Your task to perform on an android device: toggle priority inbox in the gmail app Image 0: 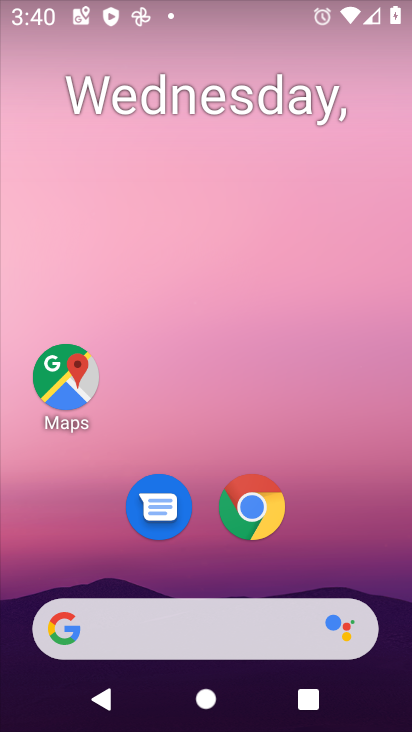
Step 0: drag from (292, 547) to (325, 305)
Your task to perform on an android device: toggle priority inbox in the gmail app Image 1: 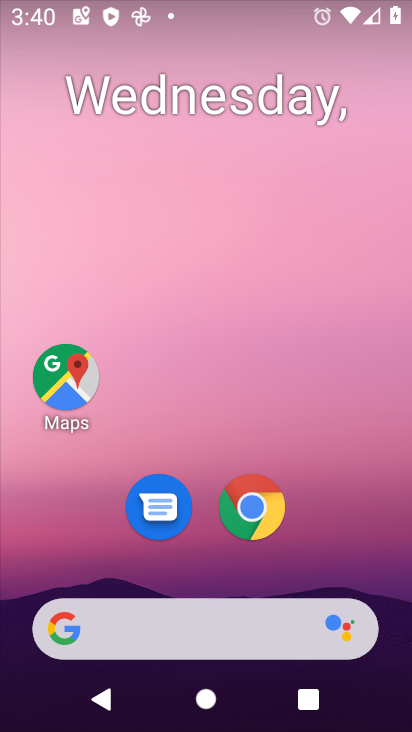
Step 1: drag from (312, 435) to (330, 141)
Your task to perform on an android device: toggle priority inbox in the gmail app Image 2: 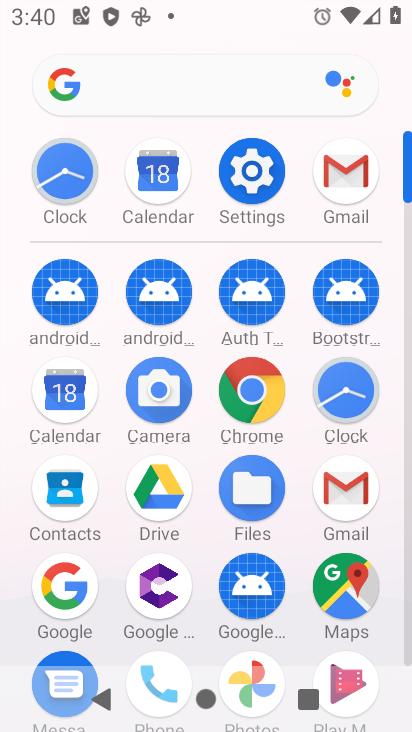
Step 2: click (350, 504)
Your task to perform on an android device: toggle priority inbox in the gmail app Image 3: 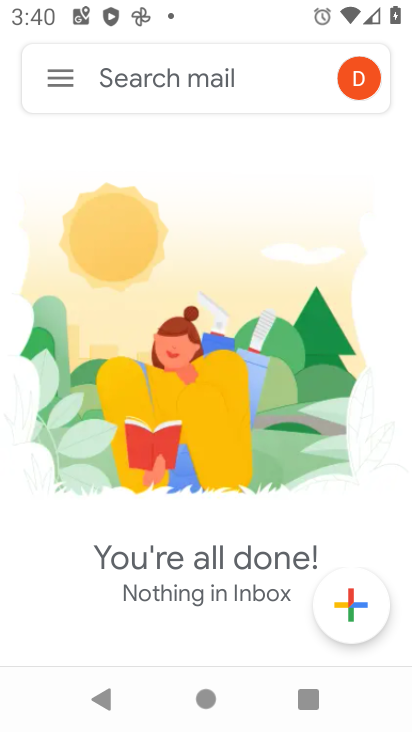
Step 3: click (84, 63)
Your task to perform on an android device: toggle priority inbox in the gmail app Image 4: 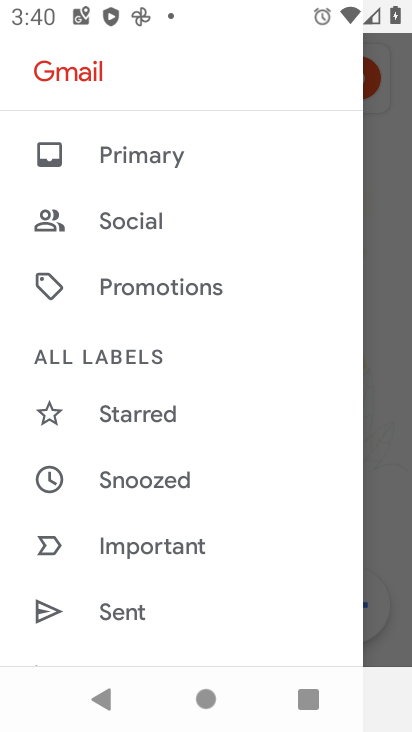
Step 4: drag from (225, 508) to (219, 278)
Your task to perform on an android device: toggle priority inbox in the gmail app Image 5: 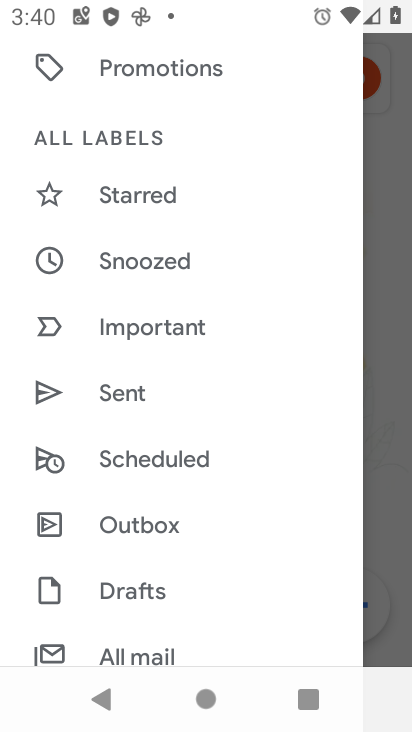
Step 5: drag from (210, 561) to (231, 184)
Your task to perform on an android device: toggle priority inbox in the gmail app Image 6: 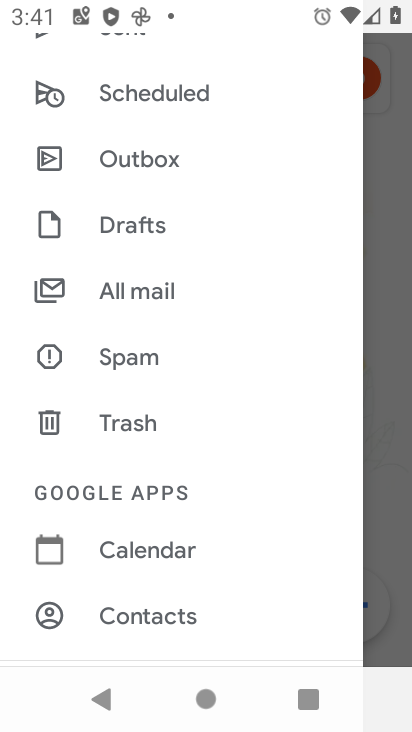
Step 6: click (103, 282)
Your task to perform on an android device: toggle priority inbox in the gmail app Image 7: 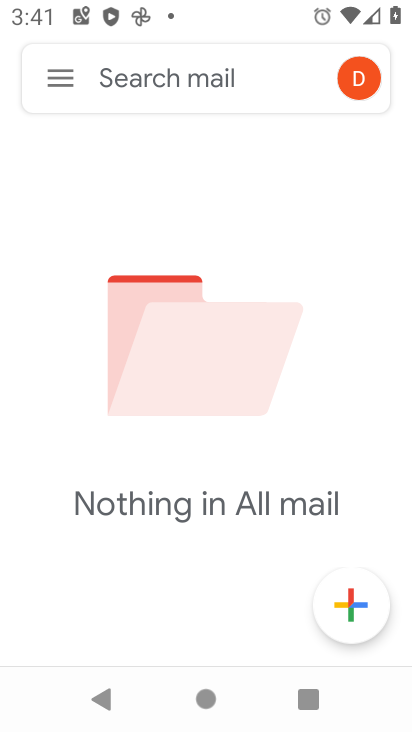
Step 7: click (80, 74)
Your task to perform on an android device: toggle priority inbox in the gmail app Image 8: 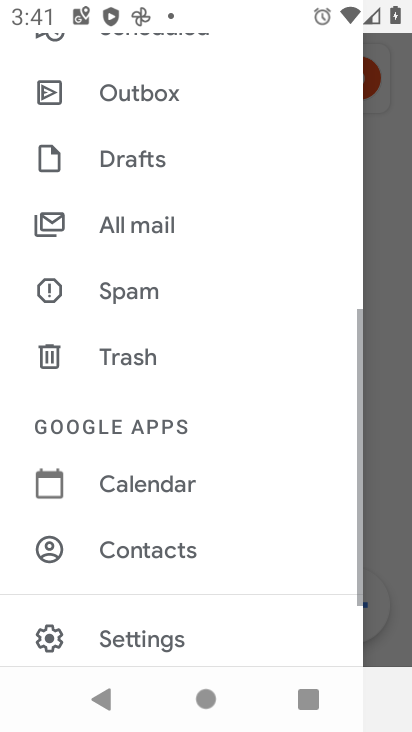
Step 8: drag from (160, 211) to (268, 535)
Your task to perform on an android device: toggle priority inbox in the gmail app Image 9: 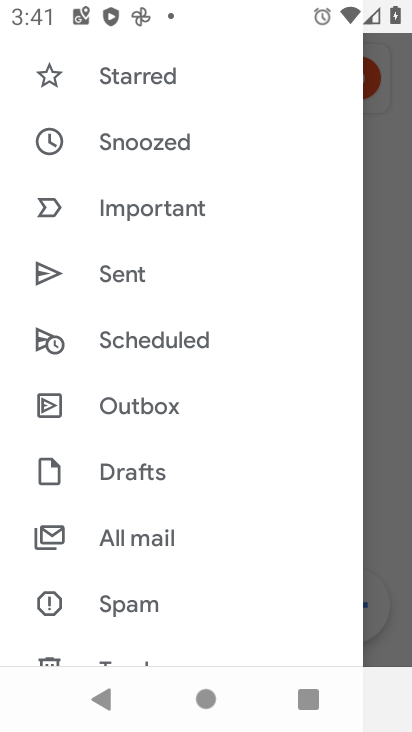
Step 9: drag from (172, 179) to (238, 507)
Your task to perform on an android device: toggle priority inbox in the gmail app Image 10: 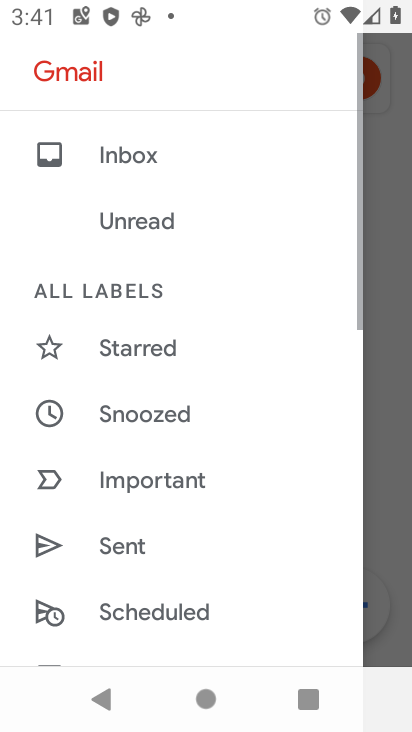
Step 10: click (112, 175)
Your task to perform on an android device: toggle priority inbox in the gmail app Image 11: 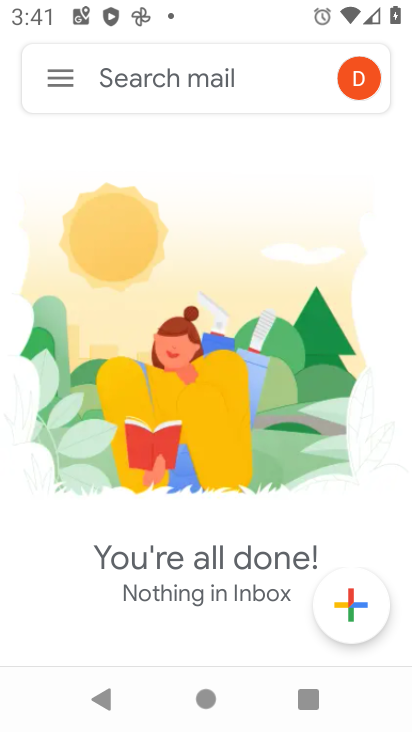
Step 11: task complete